Your task to perform on an android device: Check the news Image 0: 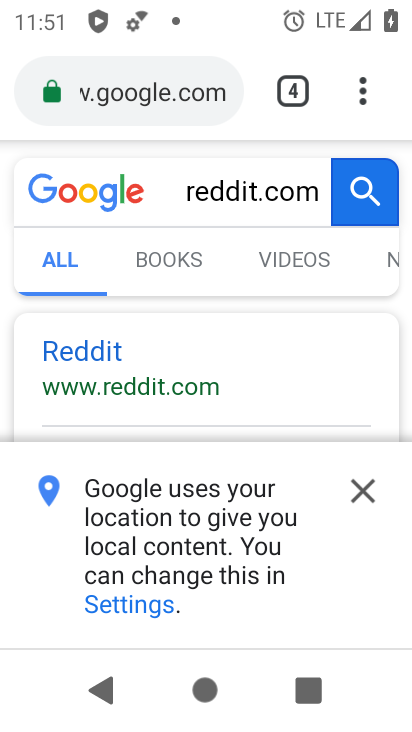
Step 0: press home button
Your task to perform on an android device: Check the news Image 1: 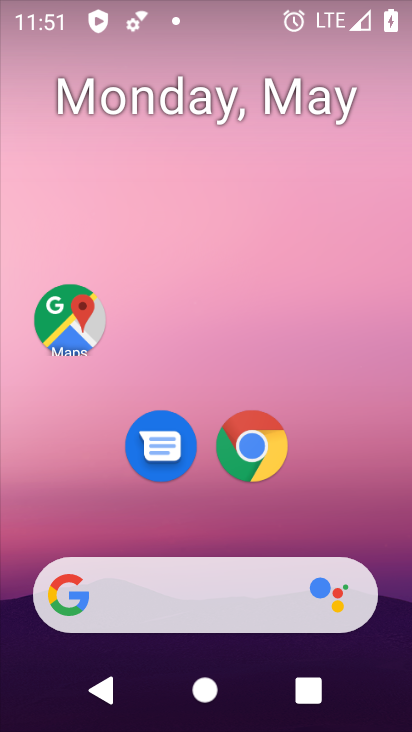
Step 1: task complete